Your task to perform on an android device: Go to Maps Image 0: 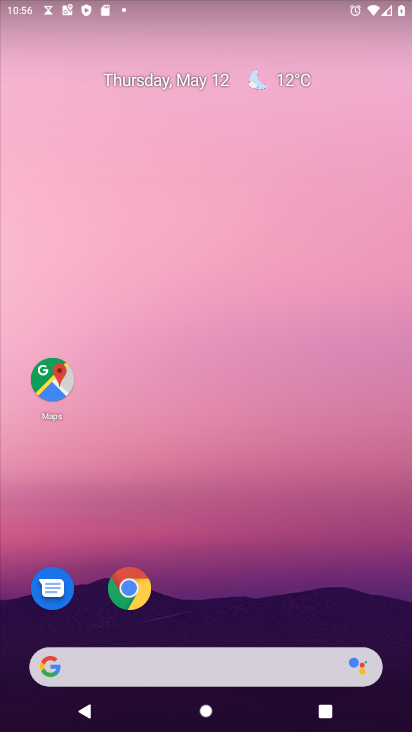
Step 0: click (50, 382)
Your task to perform on an android device: Go to Maps Image 1: 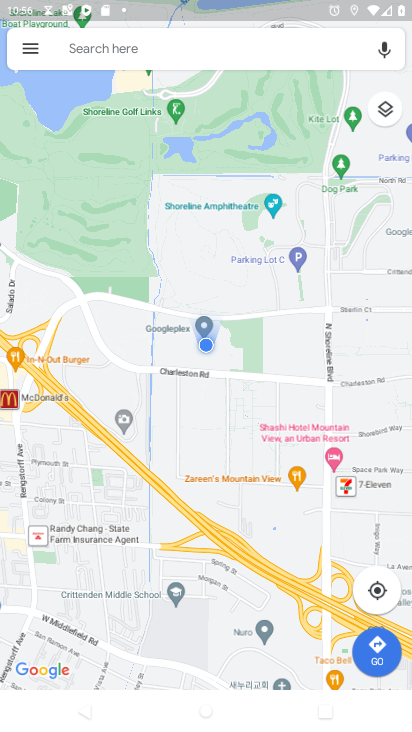
Step 1: task complete